Your task to perform on an android device: Open calendar and show me the fourth week of next month Image 0: 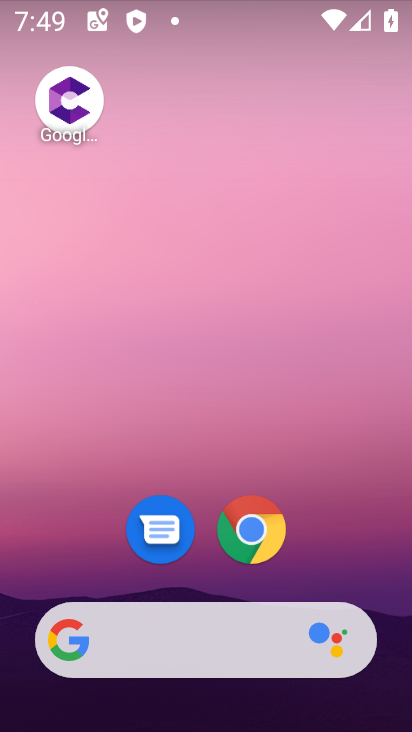
Step 0: drag from (209, 691) to (117, 60)
Your task to perform on an android device: Open calendar and show me the fourth week of next month Image 1: 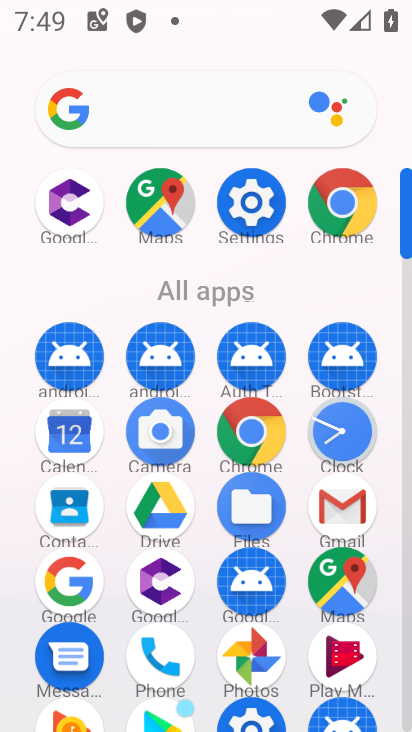
Step 1: click (73, 426)
Your task to perform on an android device: Open calendar and show me the fourth week of next month Image 2: 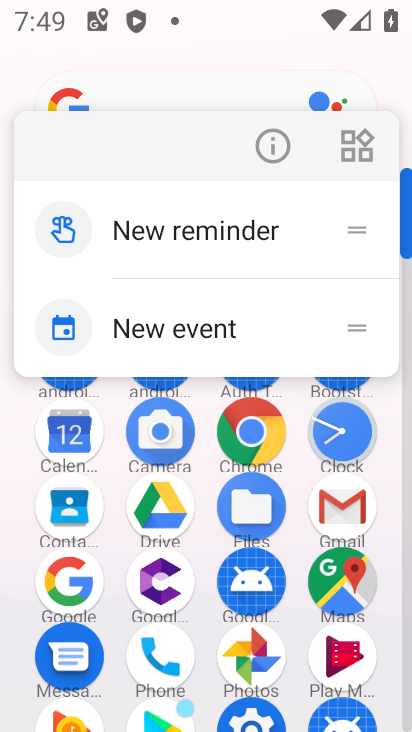
Step 2: click (85, 443)
Your task to perform on an android device: Open calendar and show me the fourth week of next month Image 3: 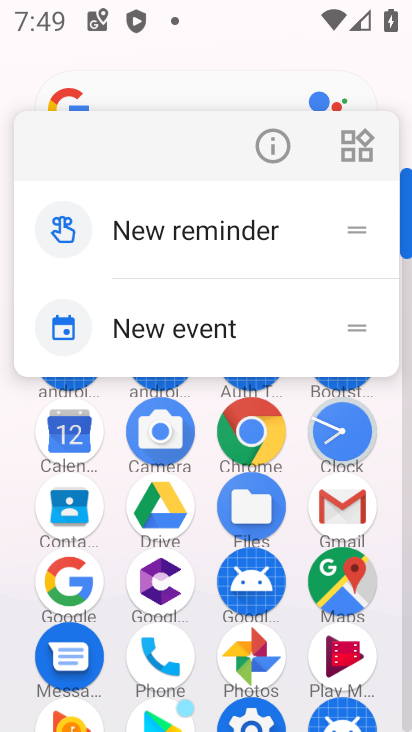
Step 3: click (85, 443)
Your task to perform on an android device: Open calendar and show me the fourth week of next month Image 4: 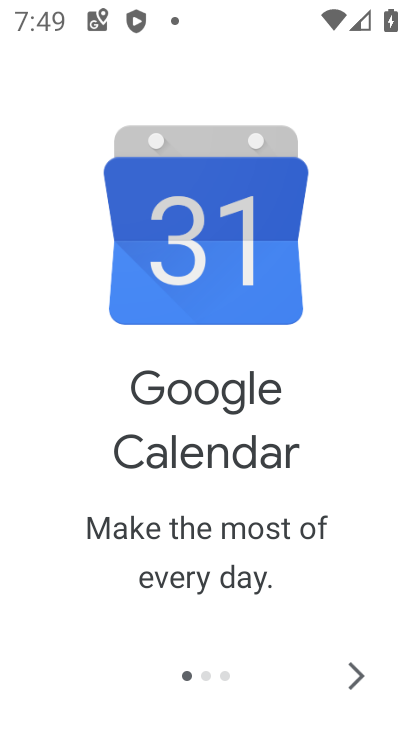
Step 4: click (346, 669)
Your task to perform on an android device: Open calendar and show me the fourth week of next month Image 5: 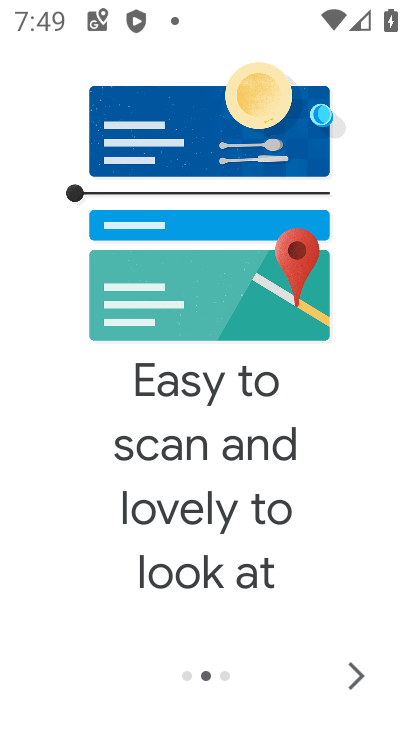
Step 5: click (346, 669)
Your task to perform on an android device: Open calendar and show me the fourth week of next month Image 6: 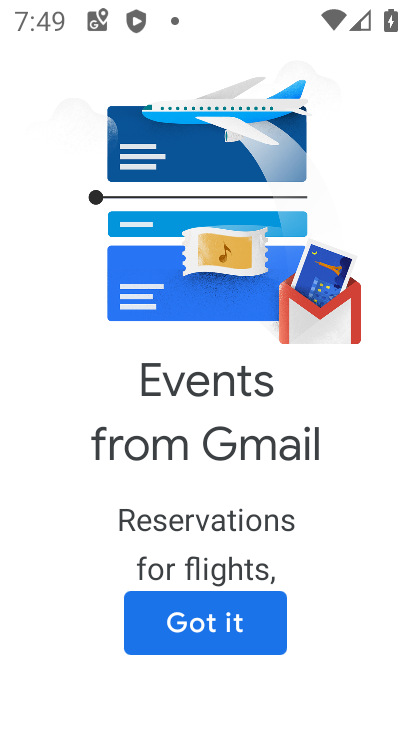
Step 6: click (196, 635)
Your task to perform on an android device: Open calendar and show me the fourth week of next month Image 7: 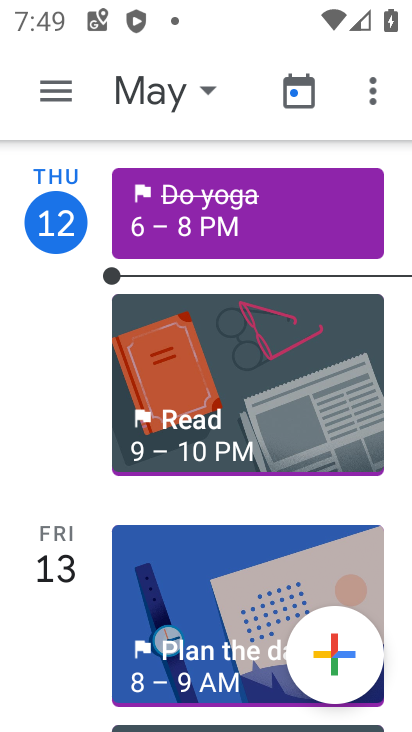
Step 7: click (150, 93)
Your task to perform on an android device: Open calendar and show me the fourth week of next month Image 8: 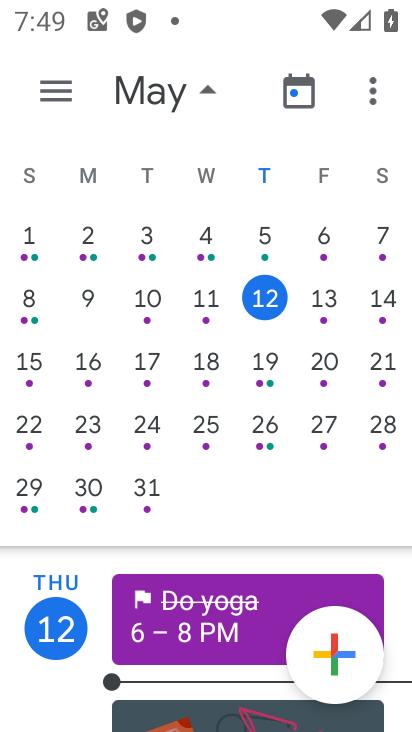
Step 8: drag from (332, 350) to (4, 480)
Your task to perform on an android device: Open calendar and show me the fourth week of next month Image 9: 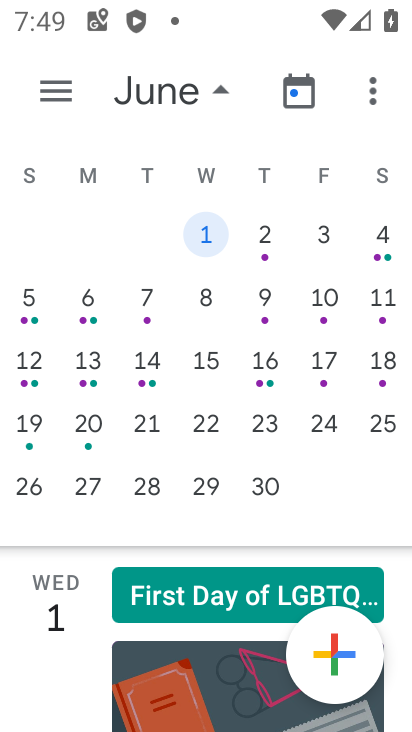
Step 9: click (28, 426)
Your task to perform on an android device: Open calendar and show me the fourth week of next month Image 10: 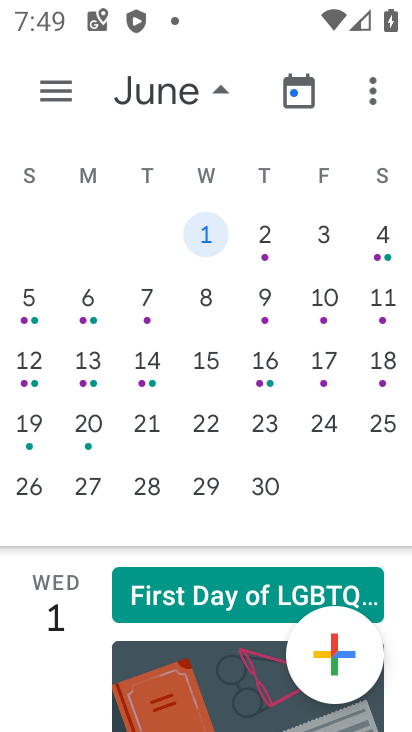
Step 10: click (38, 416)
Your task to perform on an android device: Open calendar and show me the fourth week of next month Image 11: 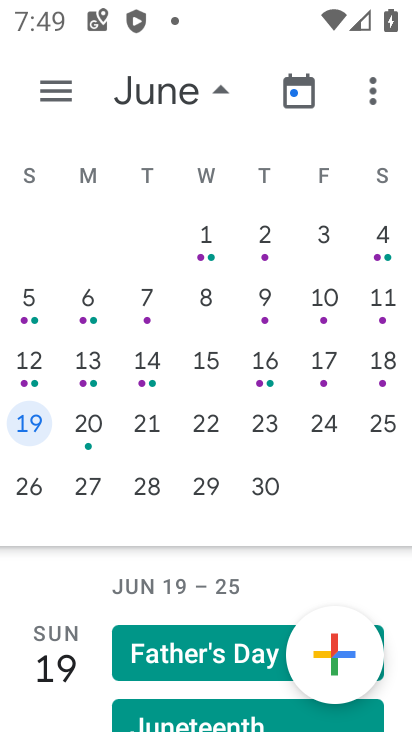
Step 11: task complete